Your task to perform on an android device: Open Google Maps Image 0: 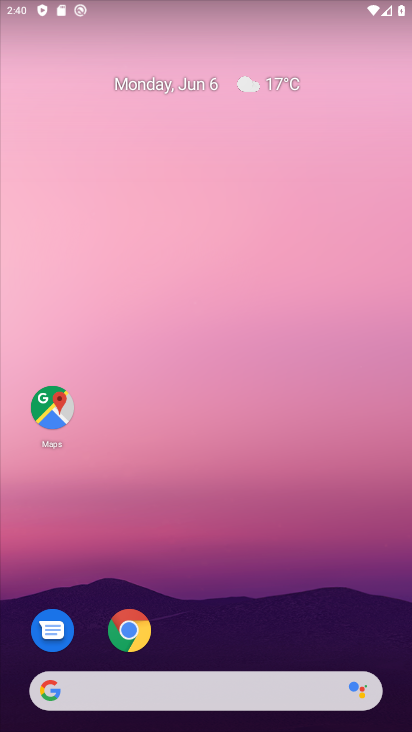
Step 0: click (38, 407)
Your task to perform on an android device: Open Google Maps Image 1: 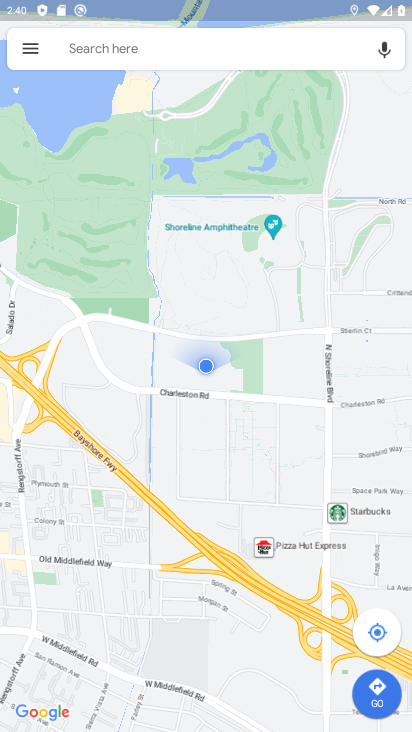
Step 1: task complete